Your task to perform on an android device: Turn off the flashlight Image 0: 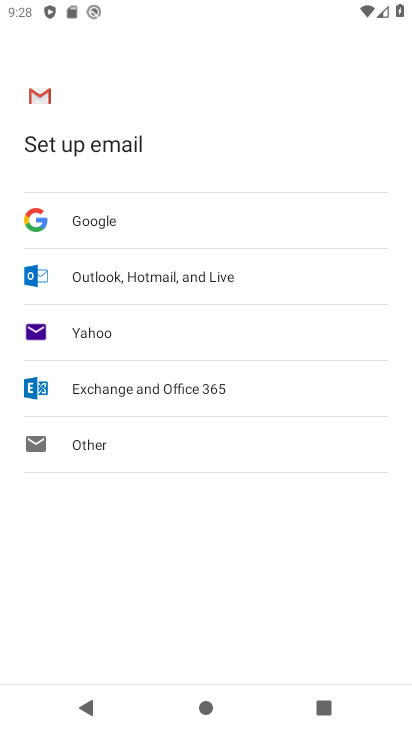
Step 0: press home button
Your task to perform on an android device: Turn off the flashlight Image 1: 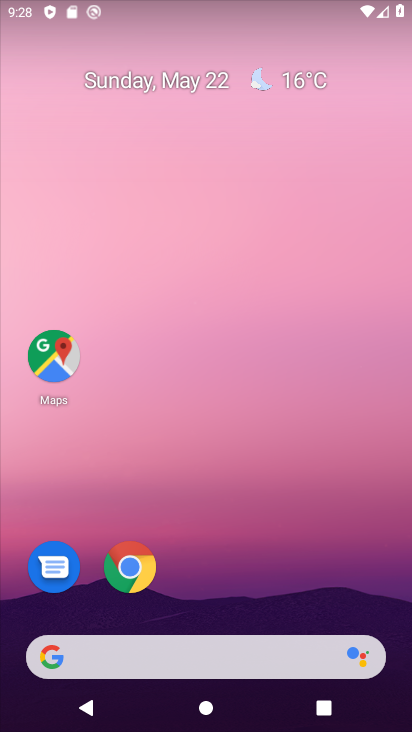
Step 1: drag from (176, 626) to (400, 649)
Your task to perform on an android device: Turn off the flashlight Image 2: 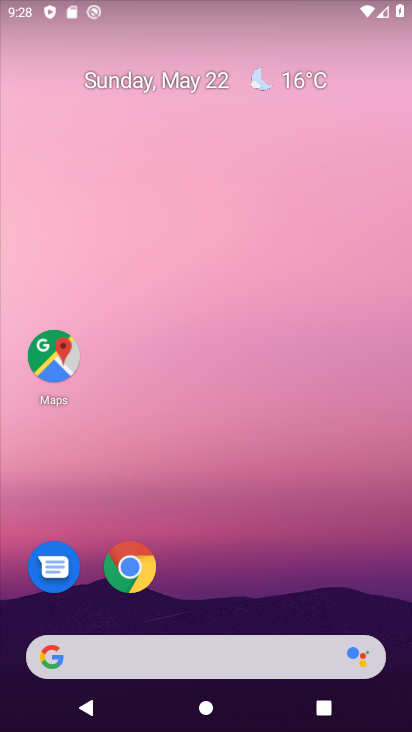
Step 2: click (136, 683)
Your task to perform on an android device: Turn off the flashlight Image 3: 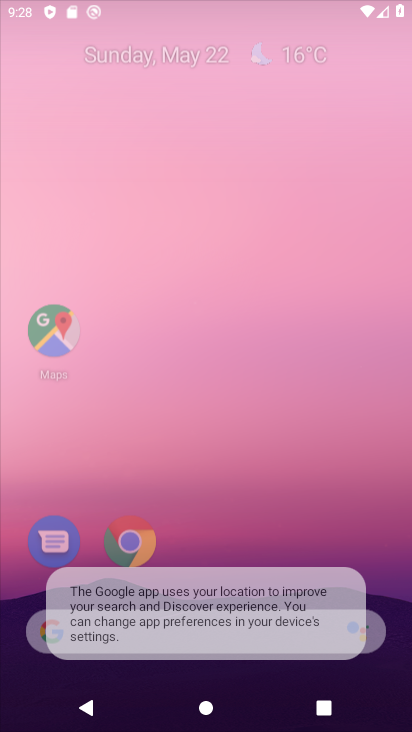
Step 3: drag from (234, 624) to (196, 87)
Your task to perform on an android device: Turn off the flashlight Image 4: 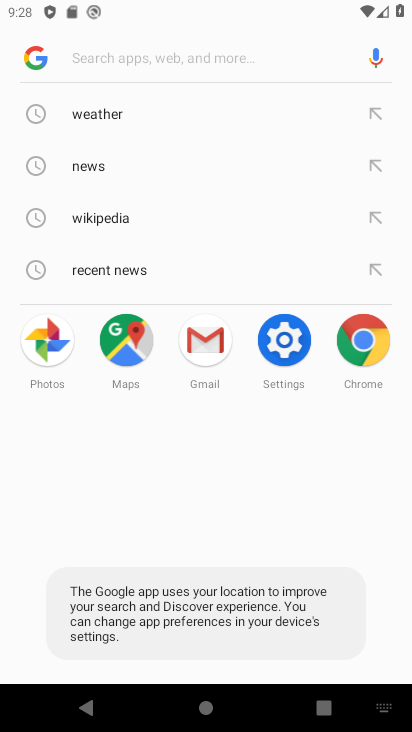
Step 4: press home button
Your task to perform on an android device: Turn off the flashlight Image 5: 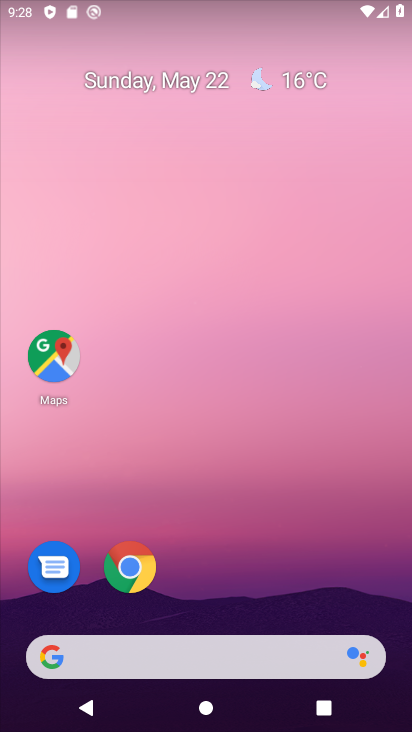
Step 5: drag from (213, 664) to (143, 60)
Your task to perform on an android device: Turn off the flashlight Image 6: 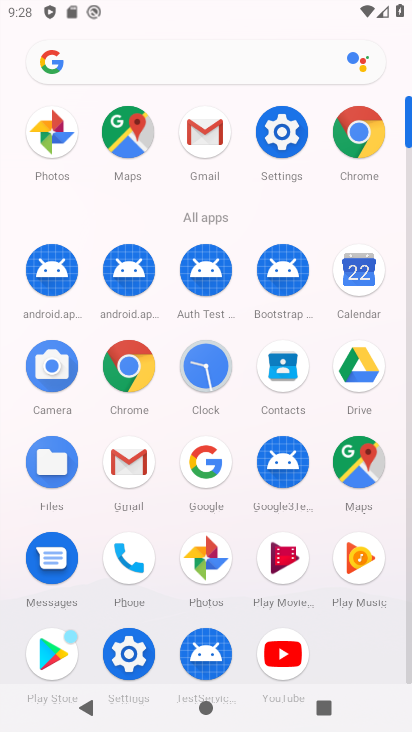
Step 6: click (126, 640)
Your task to perform on an android device: Turn off the flashlight Image 7: 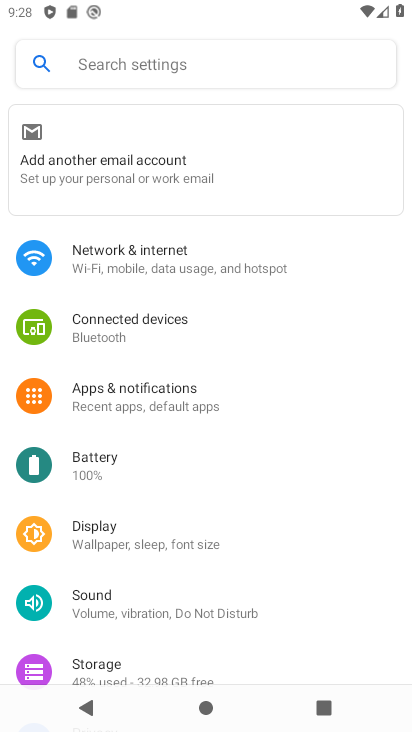
Step 7: drag from (163, 635) to (116, 325)
Your task to perform on an android device: Turn off the flashlight Image 8: 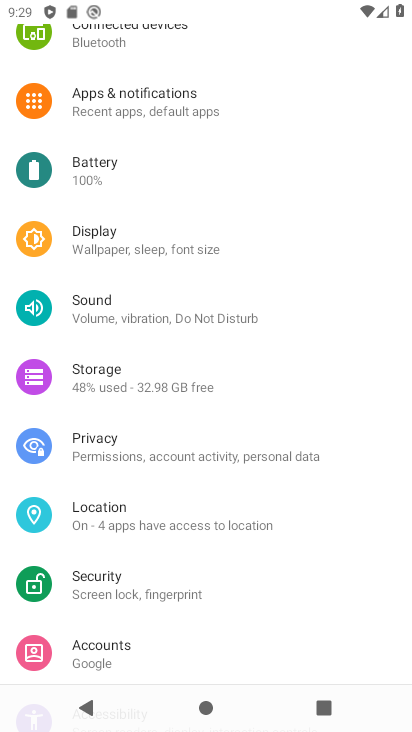
Step 8: click (109, 238)
Your task to perform on an android device: Turn off the flashlight Image 9: 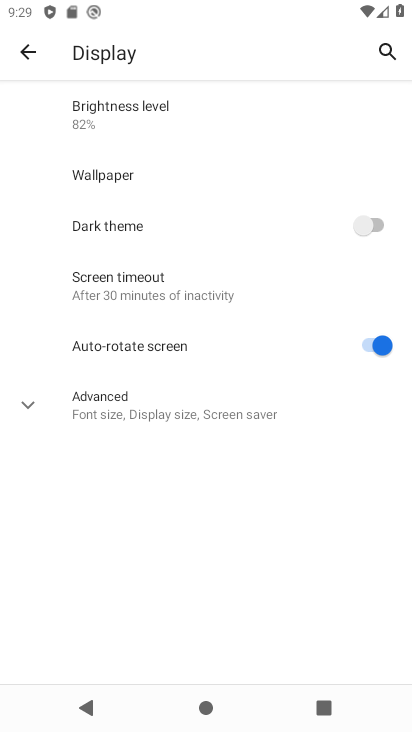
Step 9: task complete